Your task to perform on an android device: Open the stopwatch Image 0: 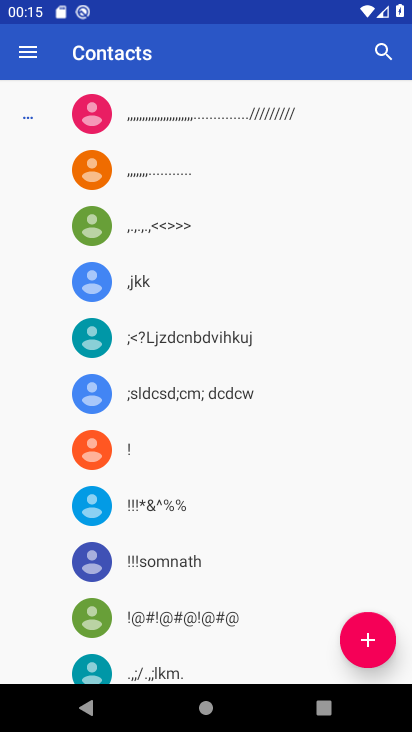
Step 0: press home button
Your task to perform on an android device: Open the stopwatch Image 1: 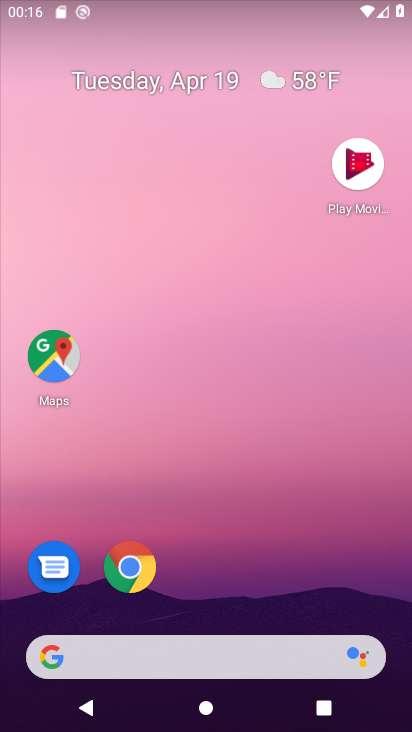
Step 1: drag from (235, 574) to (310, 74)
Your task to perform on an android device: Open the stopwatch Image 2: 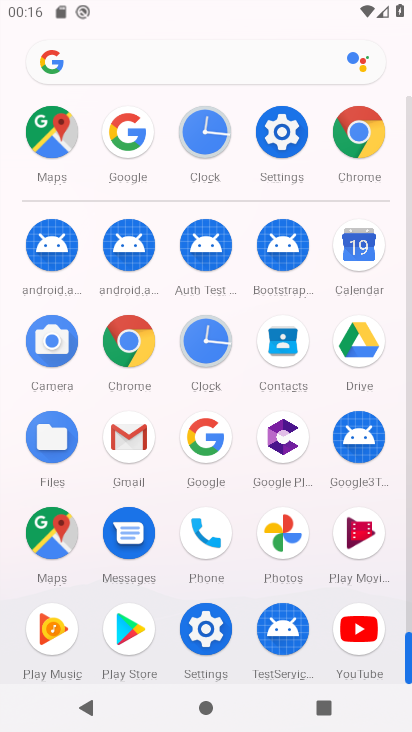
Step 2: click (200, 326)
Your task to perform on an android device: Open the stopwatch Image 3: 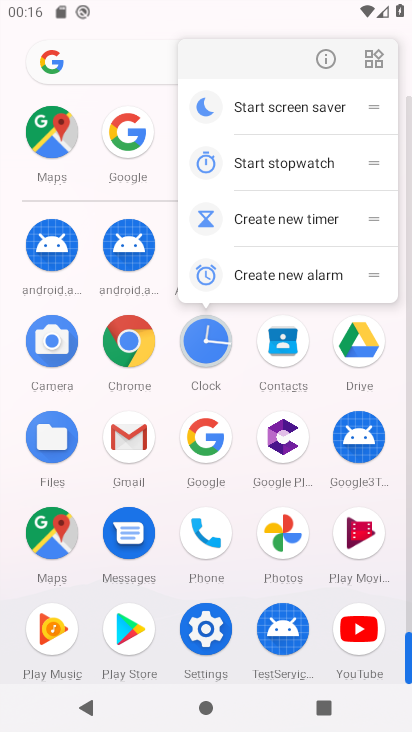
Step 3: click (323, 56)
Your task to perform on an android device: Open the stopwatch Image 4: 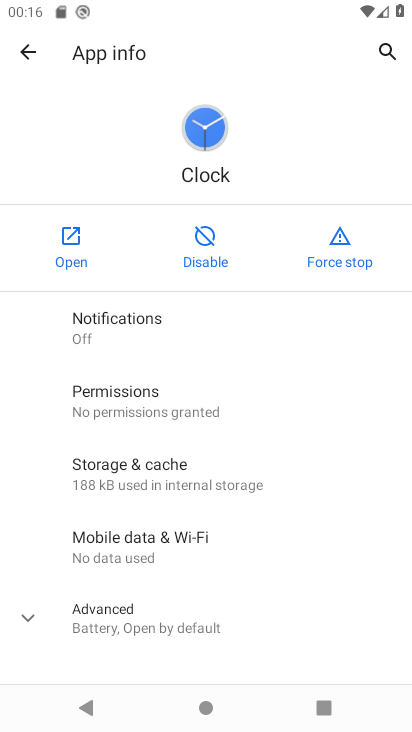
Step 4: click (65, 256)
Your task to perform on an android device: Open the stopwatch Image 5: 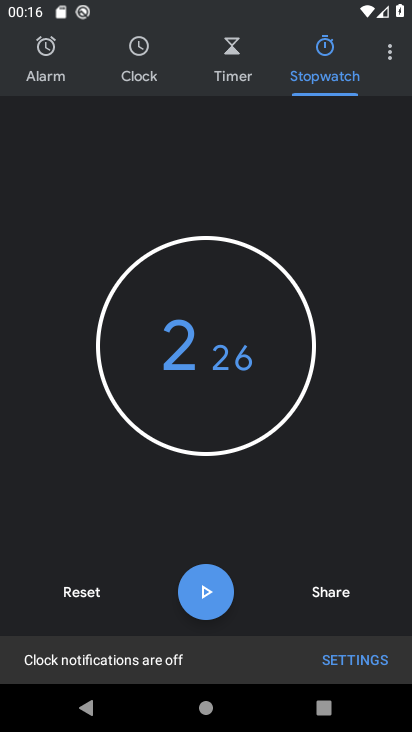
Step 5: click (64, 593)
Your task to perform on an android device: Open the stopwatch Image 6: 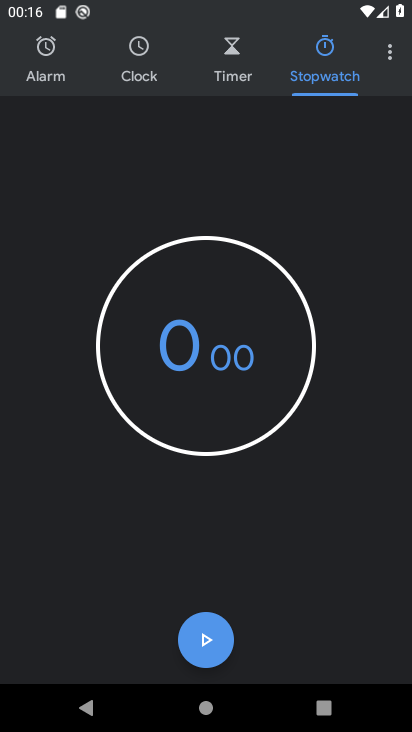
Step 6: click (210, 638)
Your task to perform on an android device: Open the stopwatch Image 7: 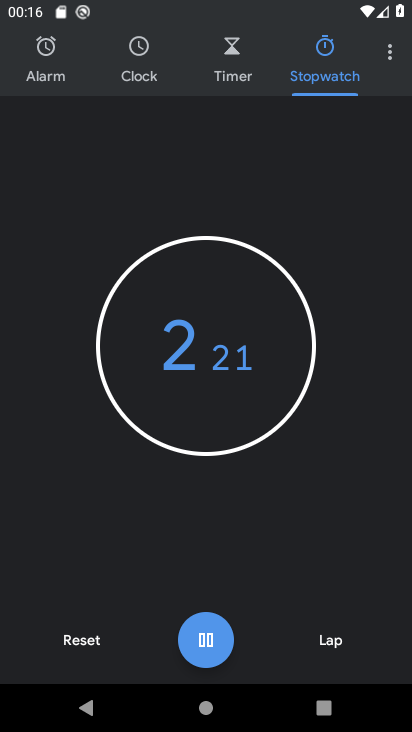
Step 7: task complete